Your task to perform on an android device: move an email to a new category in the gmail app Image 0: 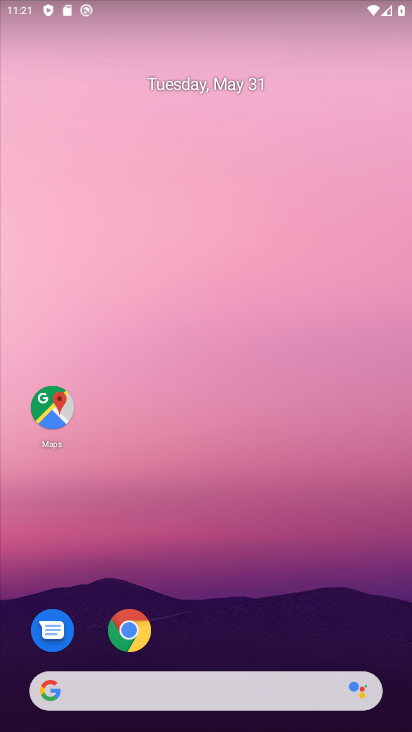
Step 0: drag from (299, 643) to (312, 38)
Your task to perform on an android device: move an email to a new category in the gmail app Image 1: 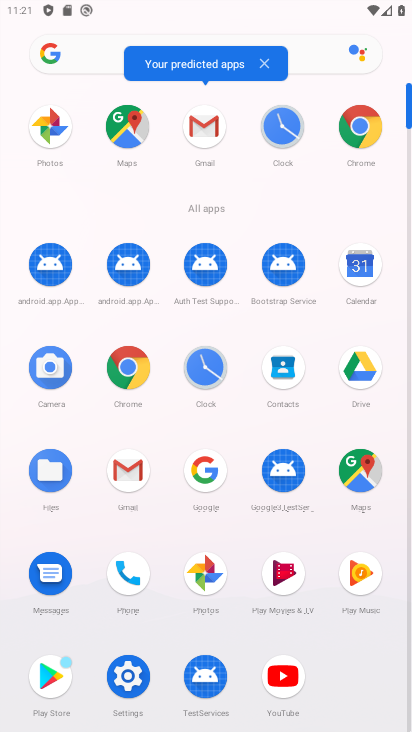
Step 1: click (201, 120)
Your task to perform on an android device: move an email to a new category in the gmail app Image 2: 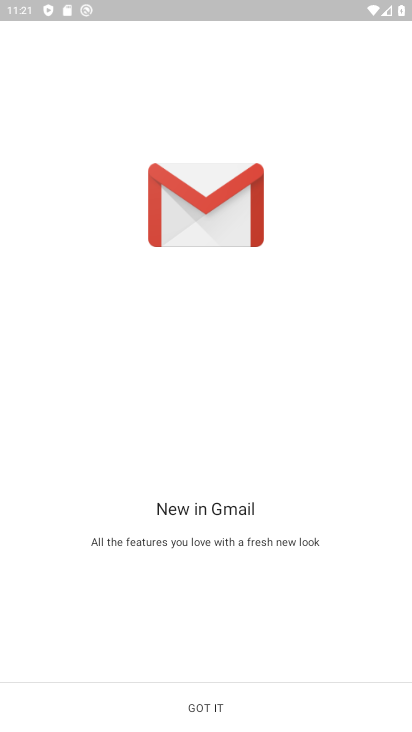
Step 2: click (208, 705)
Your task to perform on an android device: move an email to a new category in the gmail app Image 3: 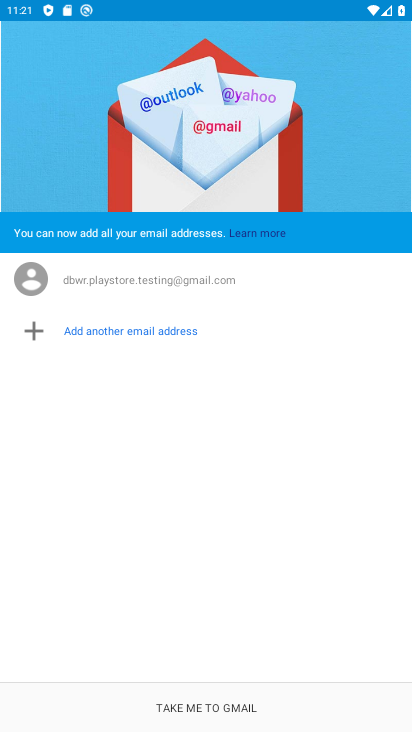
Step 3: click (208, 705)
Your task to perform on an android device: move an email to a new category in the gmail app Image 4: 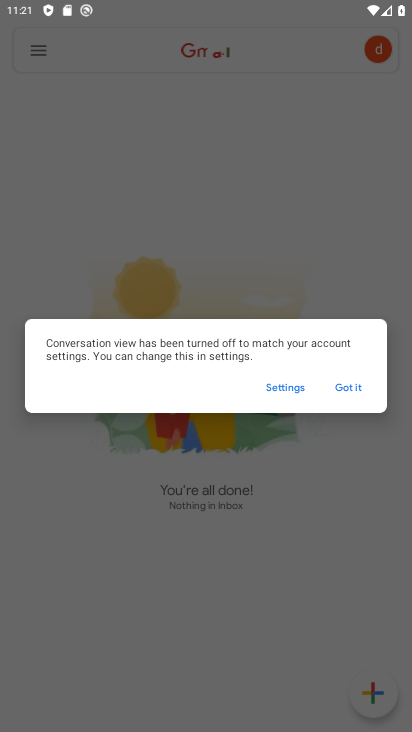
Step 4: click (348, 386)
Your task to perform on an android device: move an email to a new category in the gmail app Image 5: 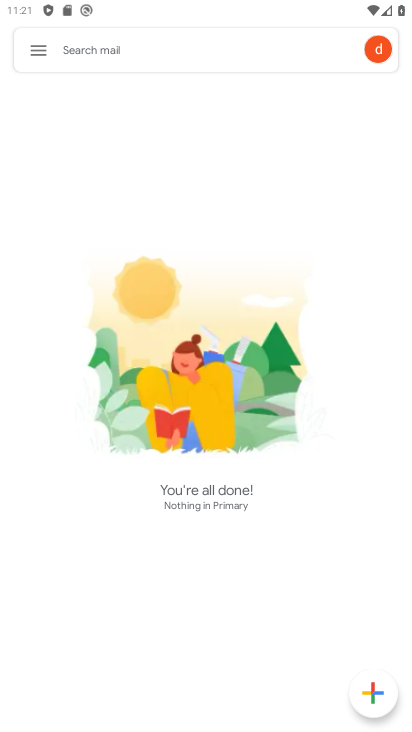
Step 5: task complete